Your task to perform on an android device: Play the last video I watched on Youtube Image 0: 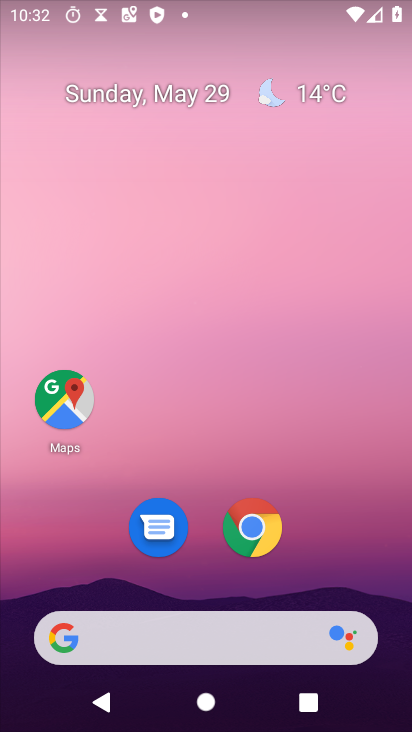
Step 0: press home button
Your task to perform on an android device: Play the last video I watched on Youtube Image 1: 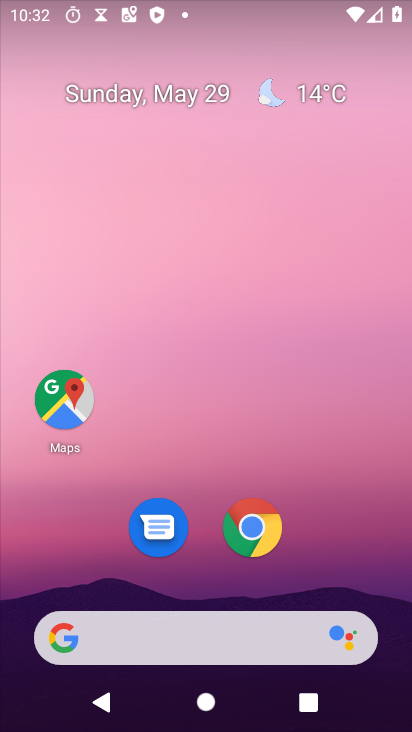
Step 1: drag from (169, 648) to (280, 53)
Your task to perform on an android device: Play the last video I watched on Youtube Image 2: 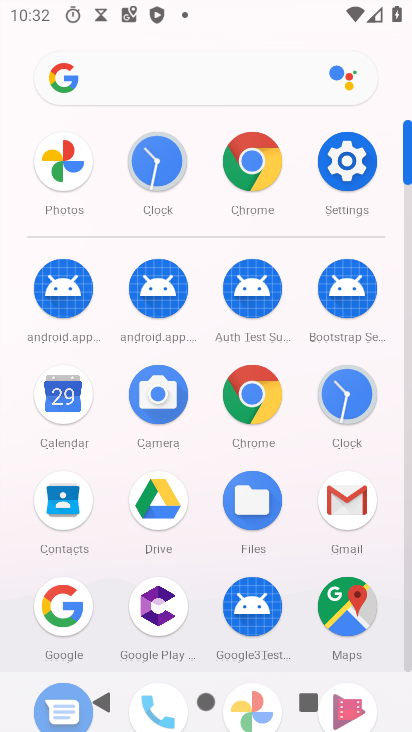
Step 2: drag from (211, 632) to (345, 86)
Your task to perform on an android device: Play the last video I watched on Youtube Image 3: 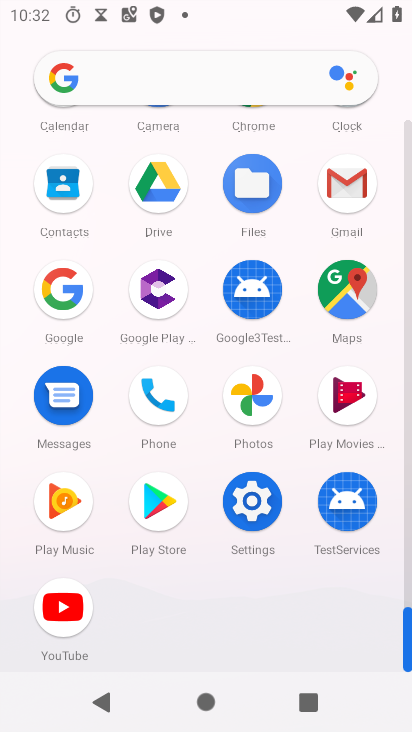
Step 3: click (61, 608)
Your task to perform on an android device: Play the last video I watched on Youtube Image 4: 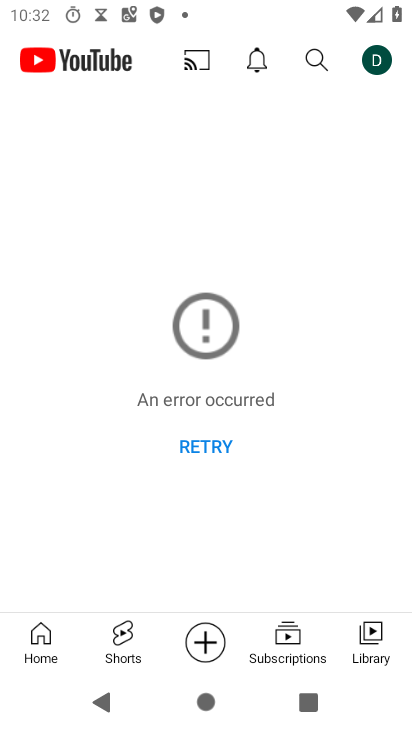
Step 4: click (197, 454)
Your task to perform on an android device: Play the last video I watched on Youtube Image 5: 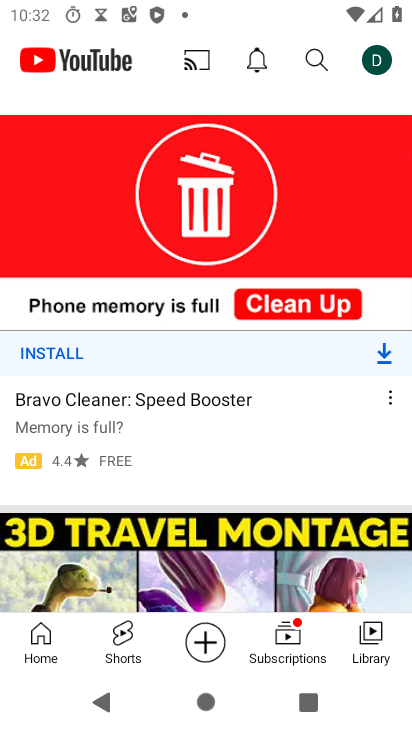
Step 5: click (373, 634)
Your task to perform on an android device: Play the last video I watched on Youtube Image 6: 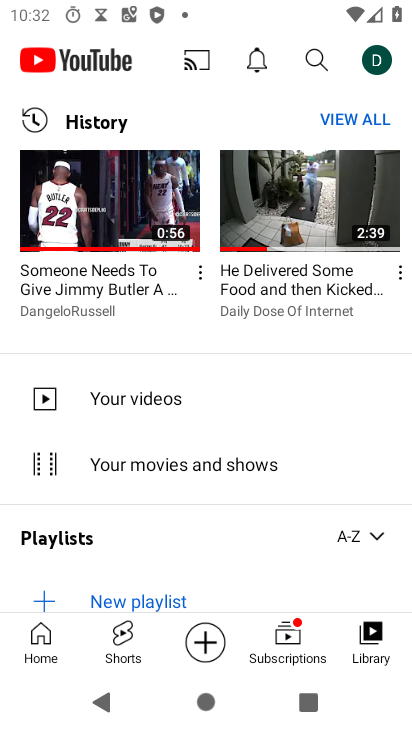
Step 6: click (119, 209)
Your task to perform on an android device: Play the last video I watched on Youtube Image 7: 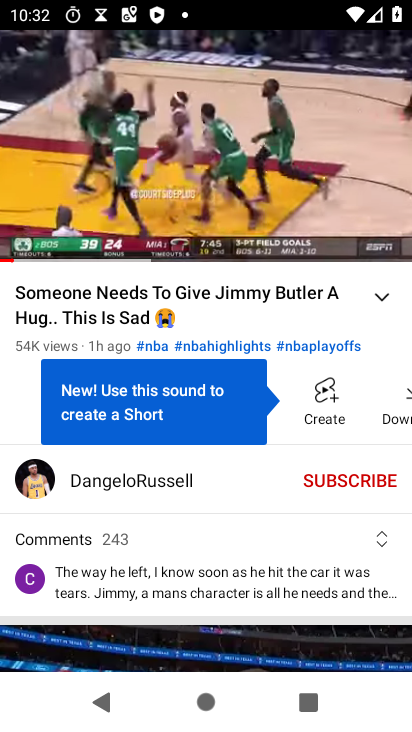
Step 7: click (220, 111)
Your task to perform on an android device: Play the last video I watched on Youtube Image 8: 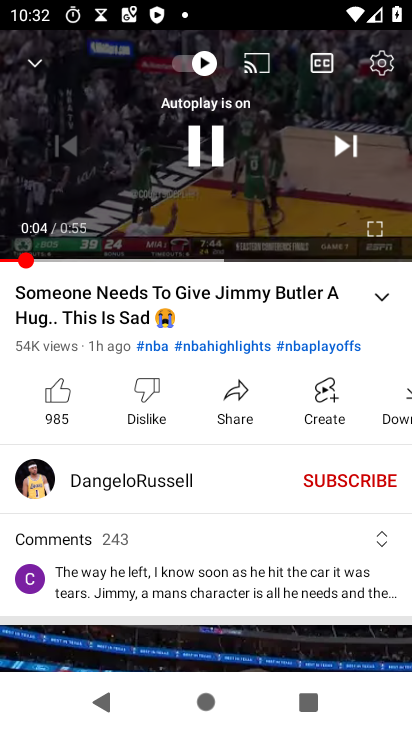
Step 8: click (210, 137)
Your task to perform on an android device: Play the last video I watched on Youtube Image 9: 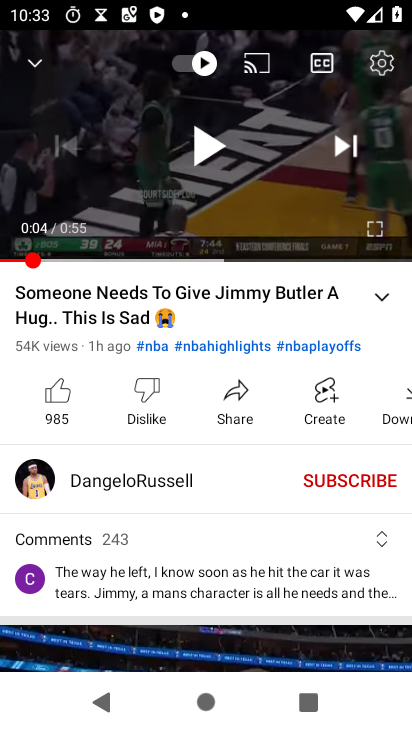
Step 9: task complete